Your task to perform on an android device: Open calendar and show me the second week of next month Image 0: 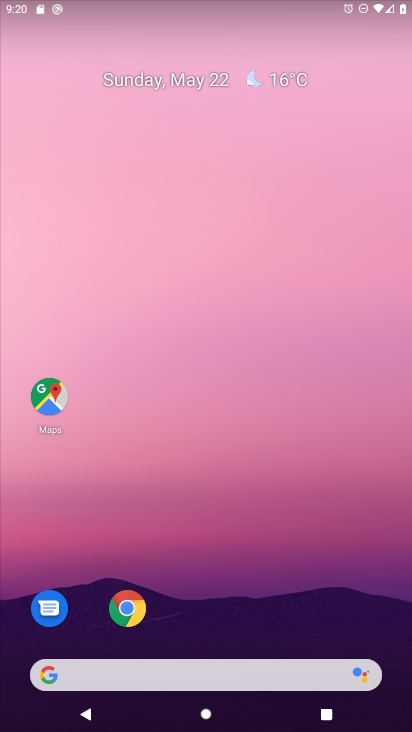
Step 0: drag from (194, 724) to (195, 110)
Your task to perform on an android device: Open calendar and show me the second week of next month Image 1: 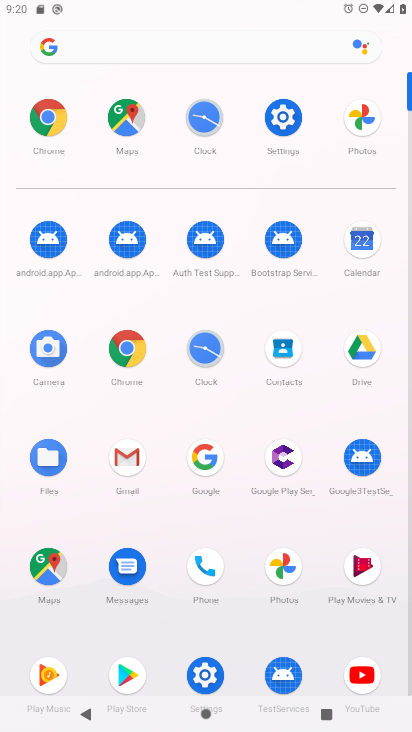
Step 1: click (364, 233)
Your task to perform on an android device: Open calendar and show me the second week of next month Image 2: 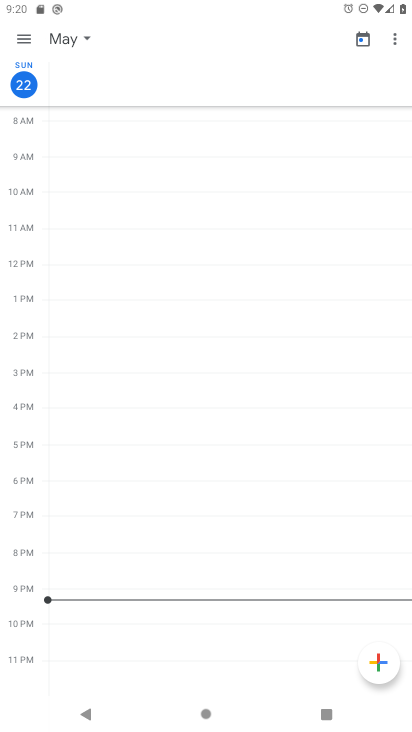
Step 2: click (68, 37)
Your task to perform on an android device: Open calendar and show me the second week of next month Image 3: 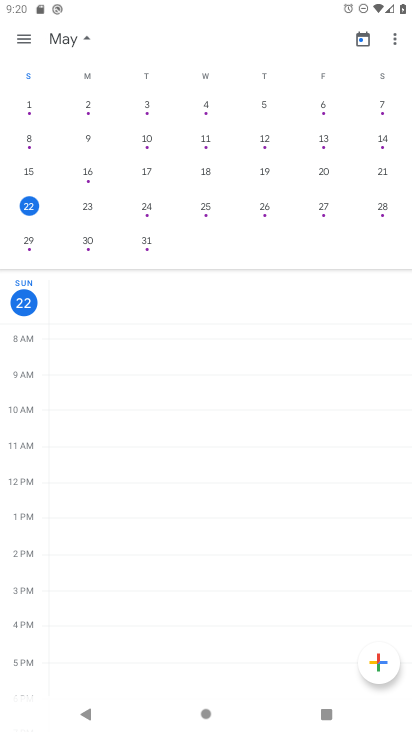
Step 3: drag from (366, 159) to (26, 153)
Your task to perform on an android device: Open calendar and show me the second week of next month Image 4: 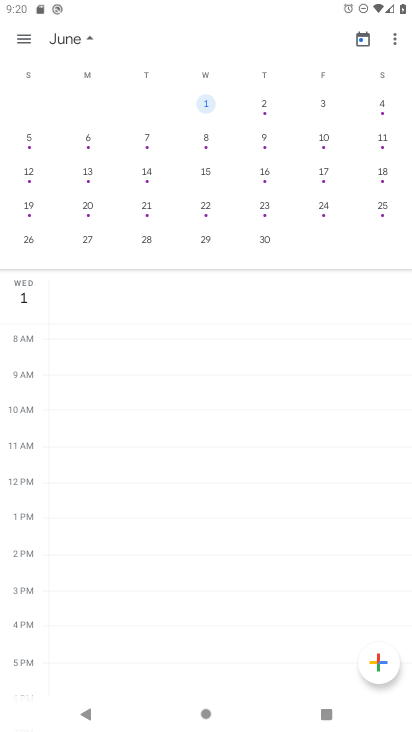
Step 4: click (87, 169)
Your task to perform on an android device: Open calendar and show me the second week of next month Image 5: 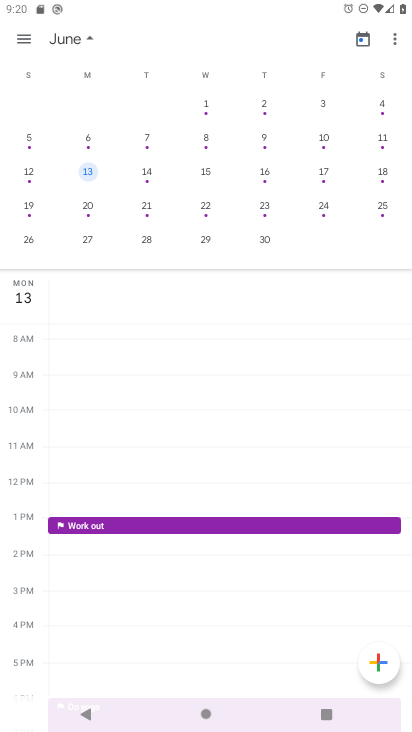
Step 5: click (27, 35)
Your task to perform on an android device: Open calendar and show me the second week of next month Image 6: 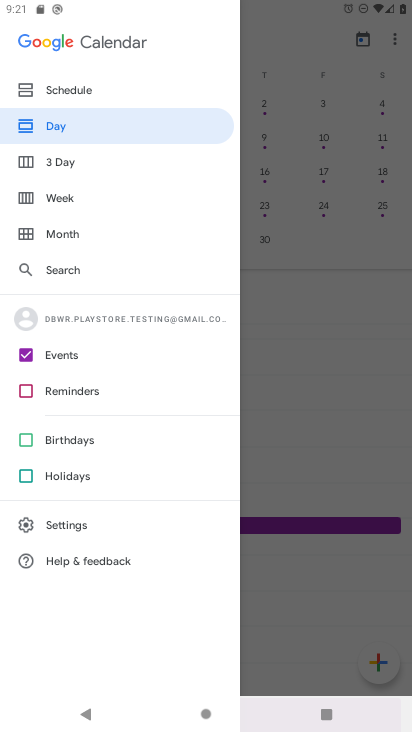
Step 6: click (60, 202)
Your task to perform on an android device: Open calendar and show me the second week of next month Image 7: 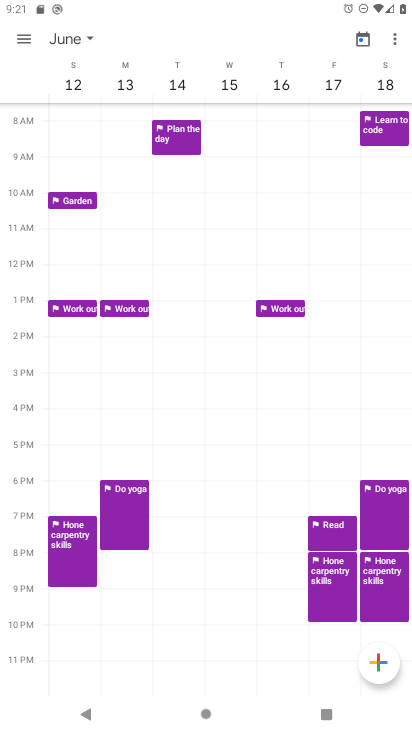
Step 7: task complete